Your task to perform on an android device: change timer sound Image 0: 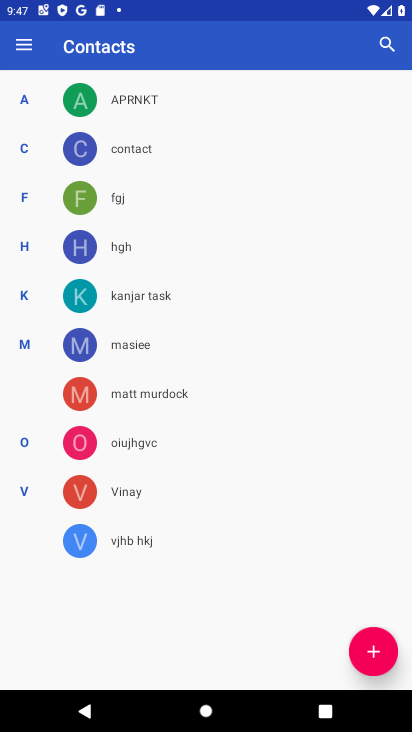
Step 0: press home button
Your task to perform on an android device: change timer sound Image 1: 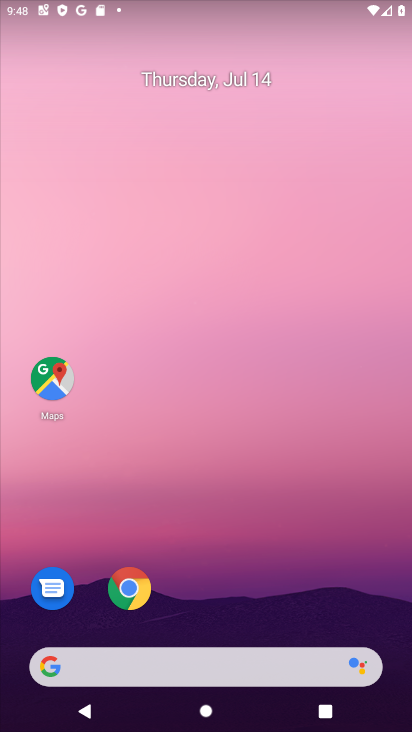
Step 1: drag from (182, 669) to (309, 133)
Your task to perform on an android device: change timer sound Image 2: 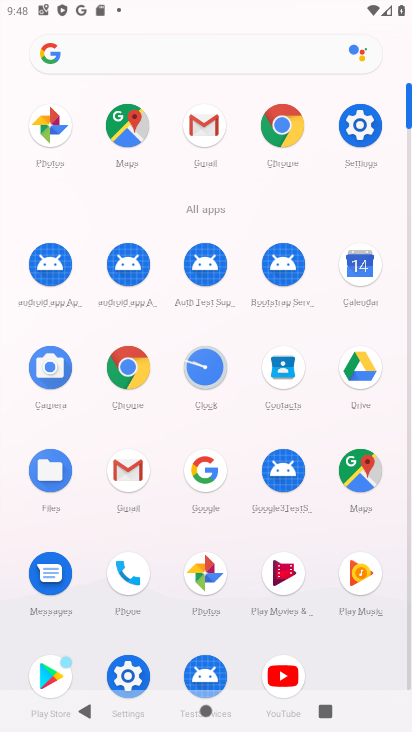
Step 2: click (205, 369)
Your task to perform on an android device: change timer sound Image 3: 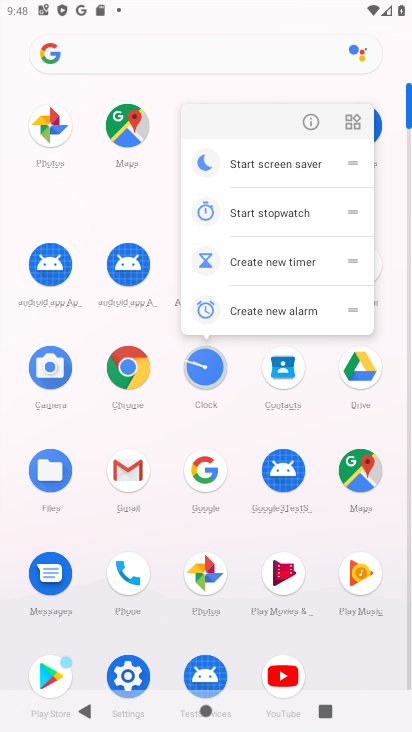
Step 3: click (203, 371)
Your task to perform on an android device: change timer sound Image 4: 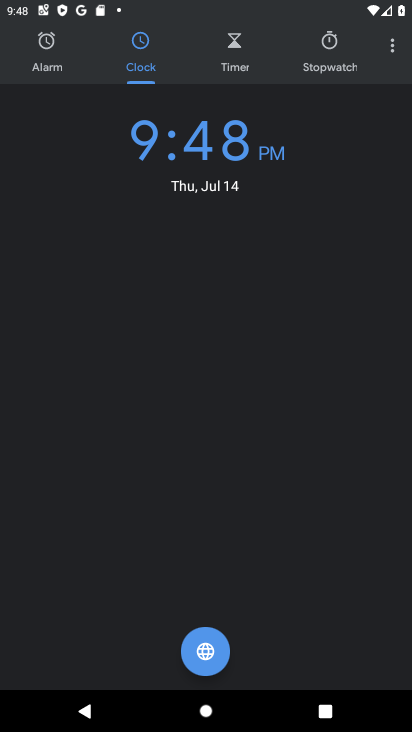
Step 4: click (394, 48)
Your task to perform on an android device: change timer sound Image 5: 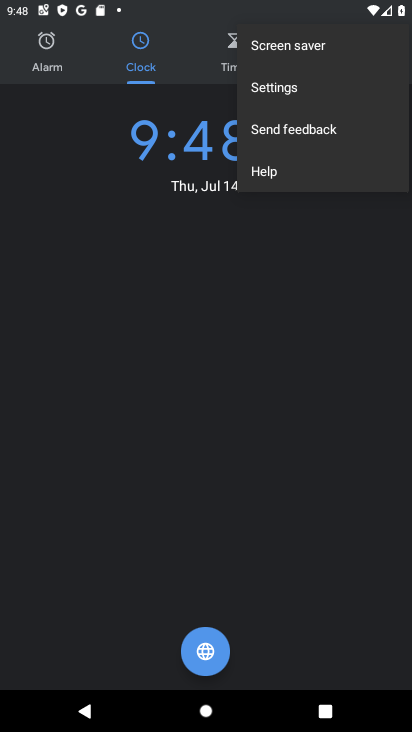
Step 5: click (262, 89)
Your task to perform on an android device: change timer sound Image 6: 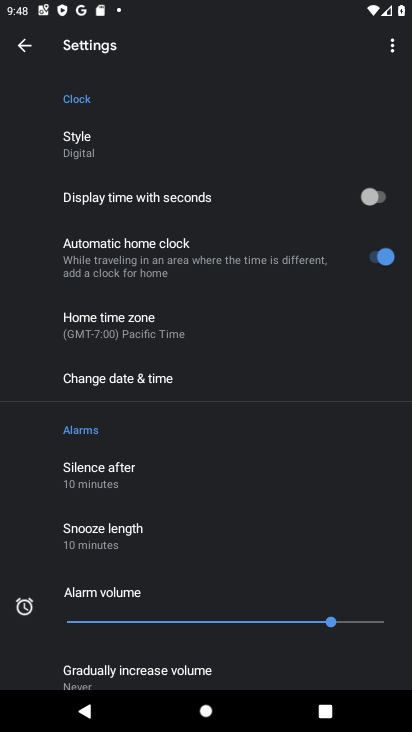
Step 6: drag from (195, 572) to (308, 170)
Your task to perform on an android device: change timer sound Image 7: 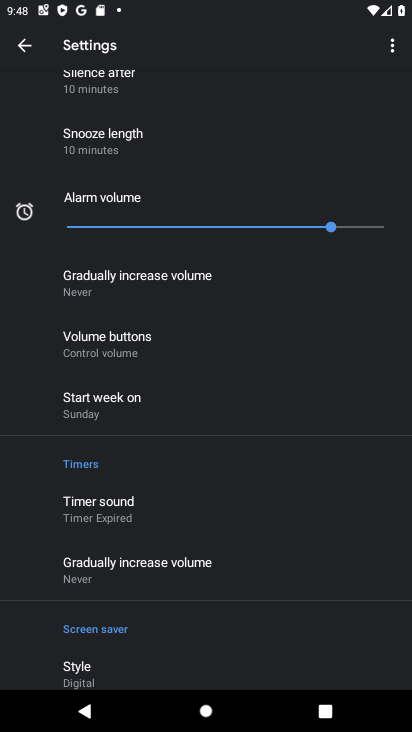
Step 7: click (121, 508)
Your task to perform on an android device: change timer sound Image 8: 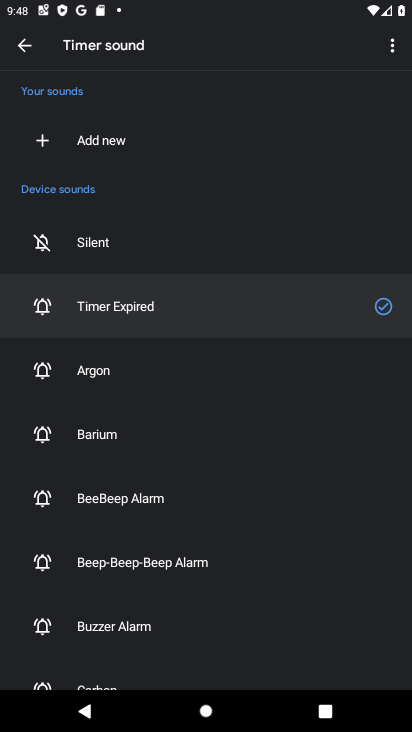
Step 8: click (101, 430)
Your task to perform on an android device: change timer sound Image 9: 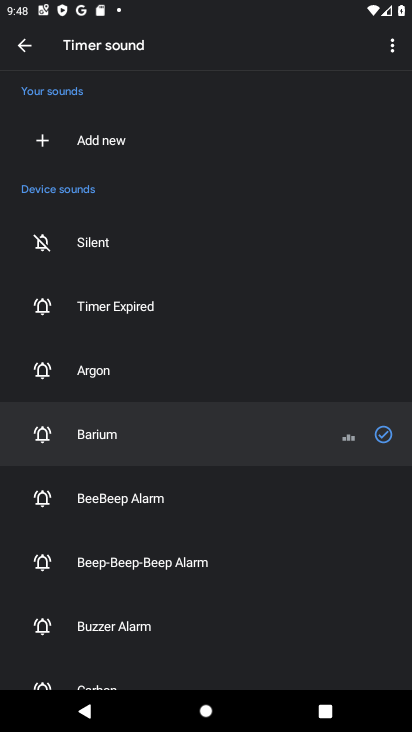
Step 9: task complete